Your task to perform on an android device: Open Google Maps and go to "Timeline" Image 0: 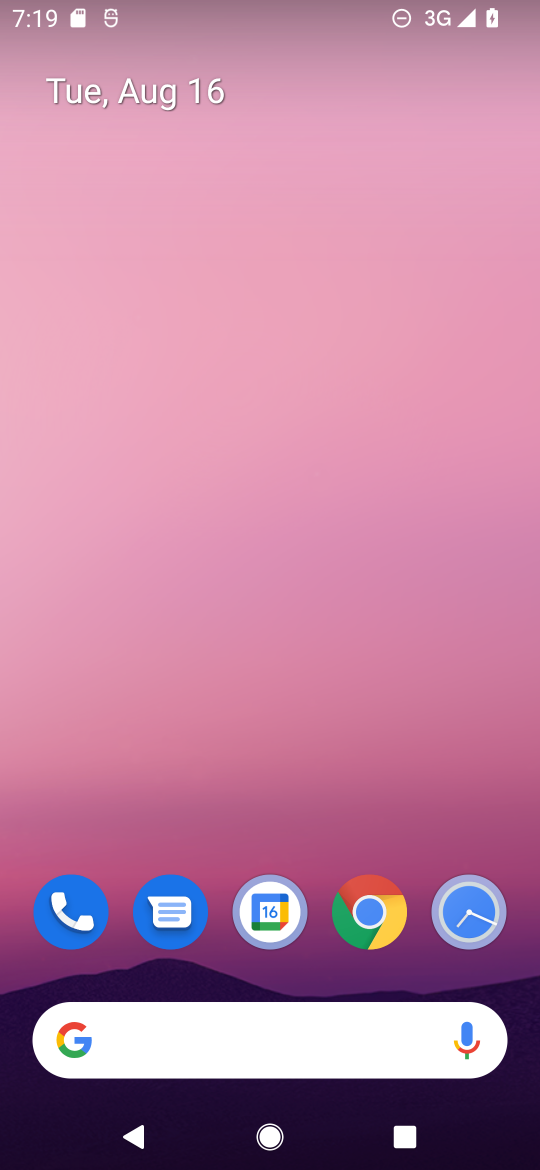
Step 0: drag from (418, 956) to (448, 207)
Your task to perform on an android device: Open Google Maps and go to "Timeline" Image 1: 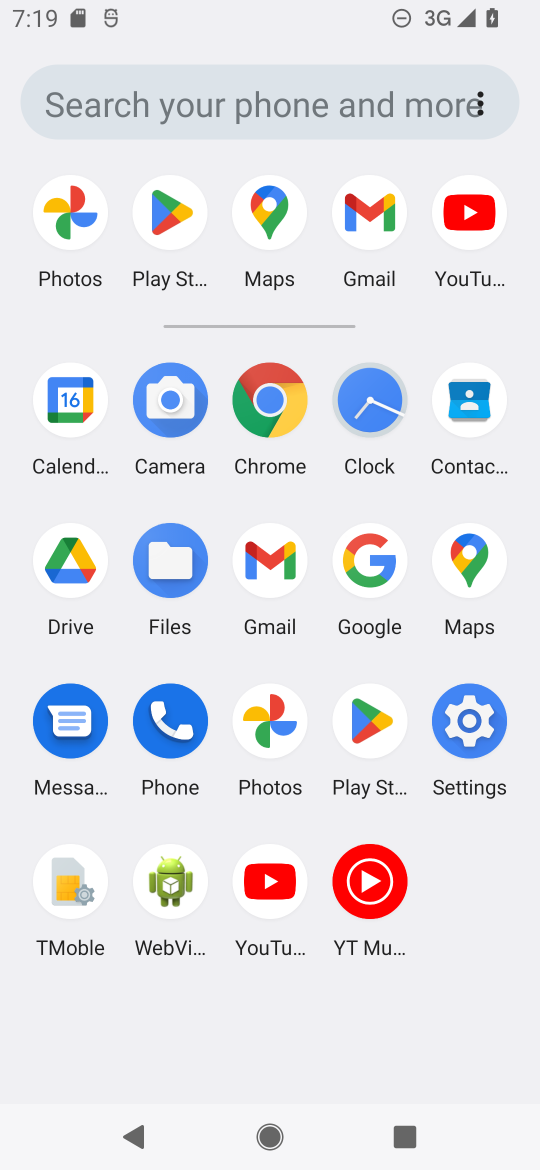
Step 1: click (470, 559)
Your task to perform on an android device: Open Google Maps and go to "Timeline" Image 2: 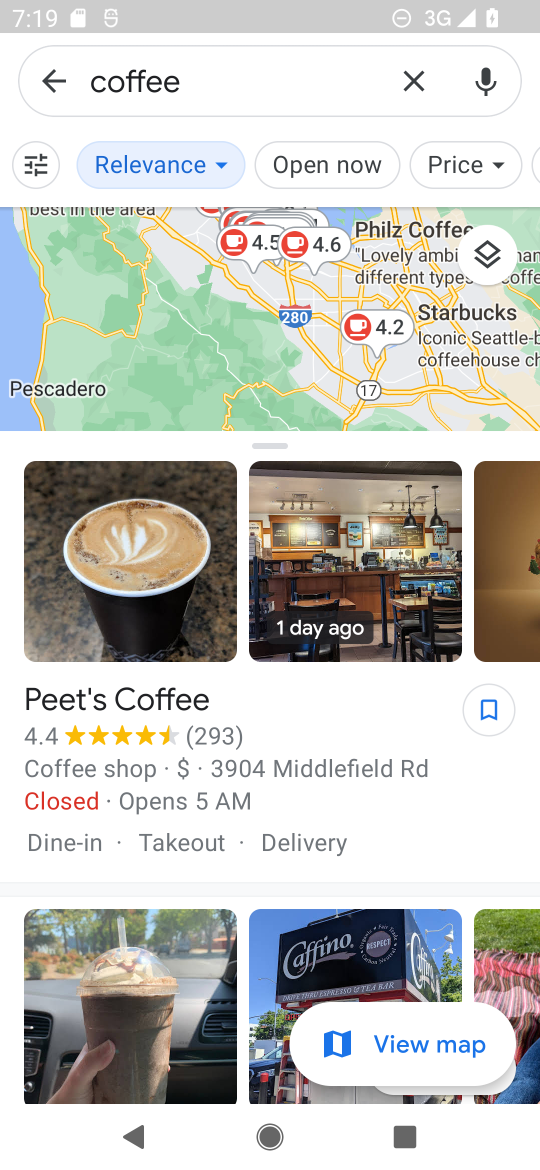
Step 2: click (412, 77)
Your task to perform on an android device: Open Google Maps and go to "Timeline" Image 3: 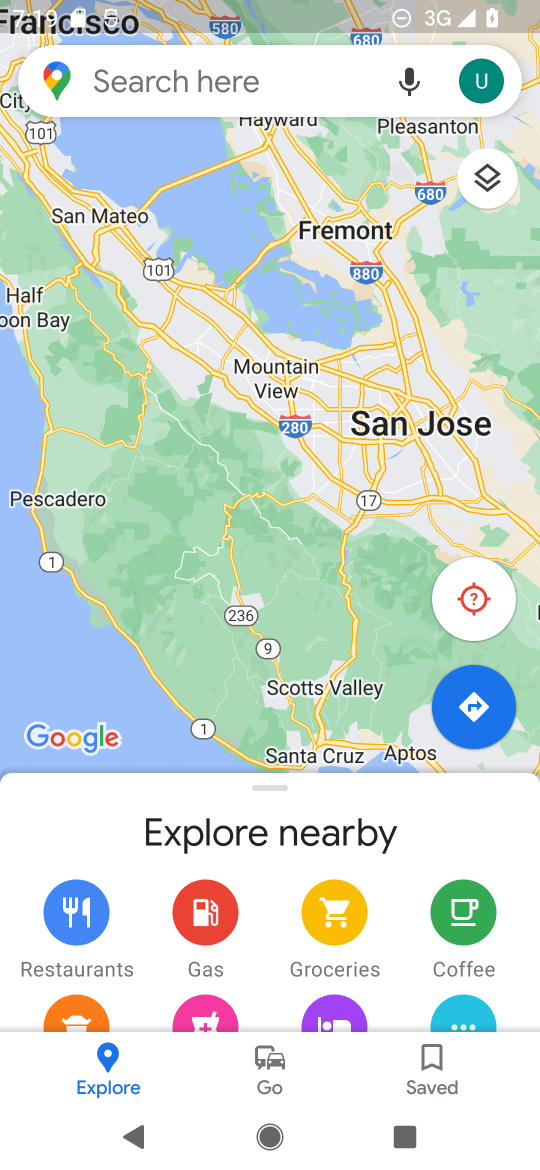
Step 3: click (490, 84)
Your task to perform on an android device: Open Google Maps and go to "Timeline" Image 4: 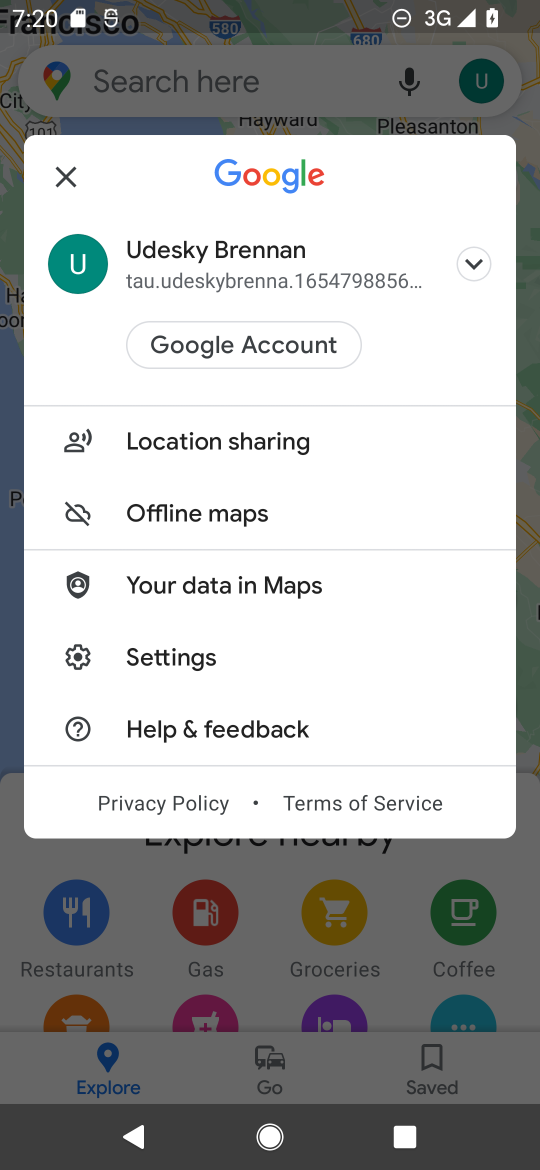
Step 4: click (223, 911)
Your task to perform on an android device: Open Google Maps and go to "Timeline" Image 5: 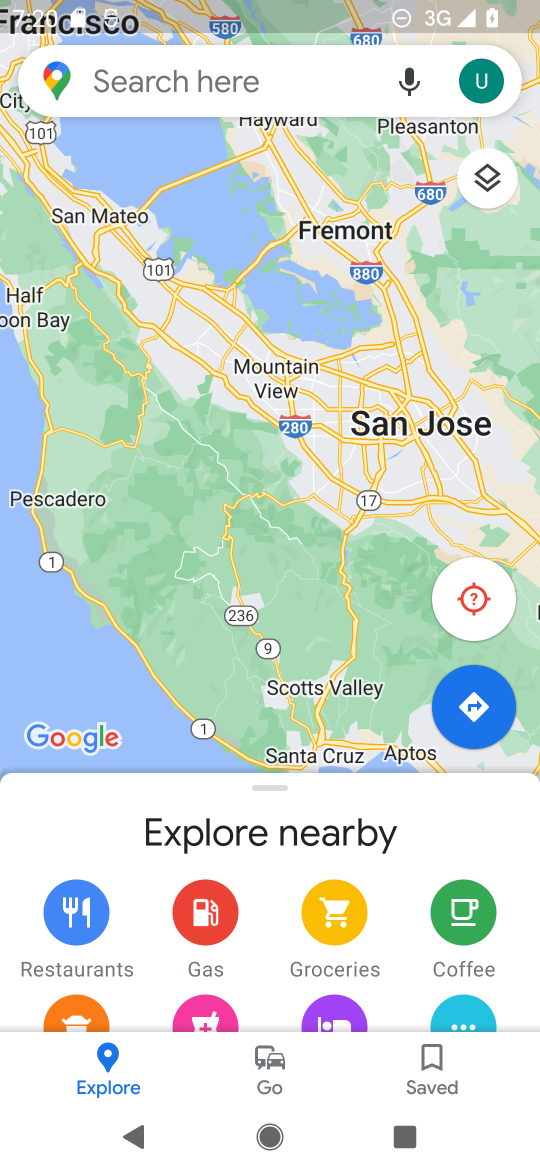
Step 5: click (426, 1071)
Your task to perform on an android device: Open Google Maps and go to "Timeline" Image 6: 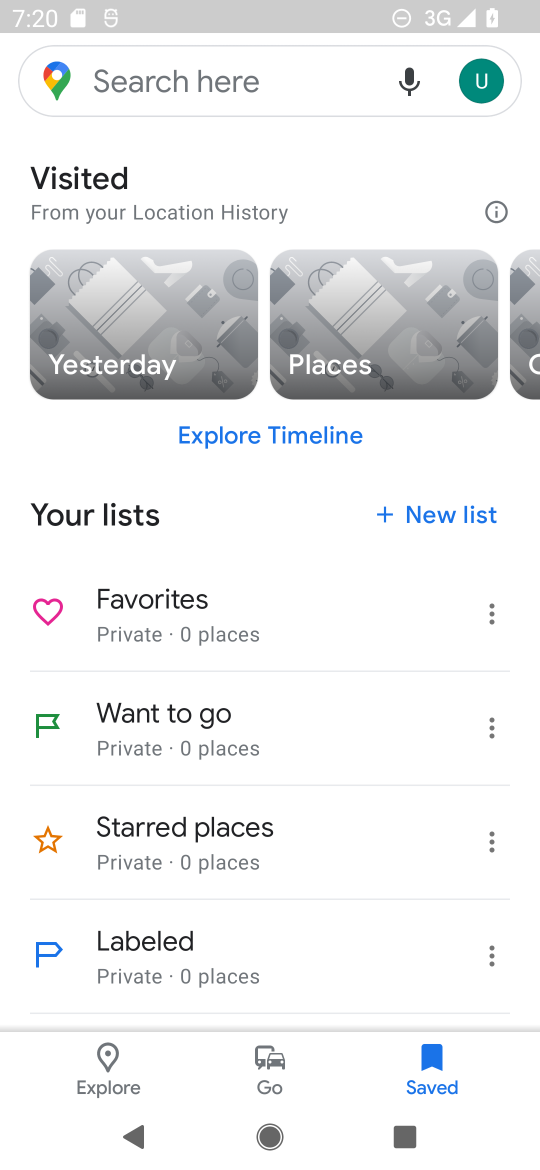
Step 6: drag from (317, 887) to (277, 933)
Your task to perform on an android device: Open Google Maps and go to "Timeline" Image 7: 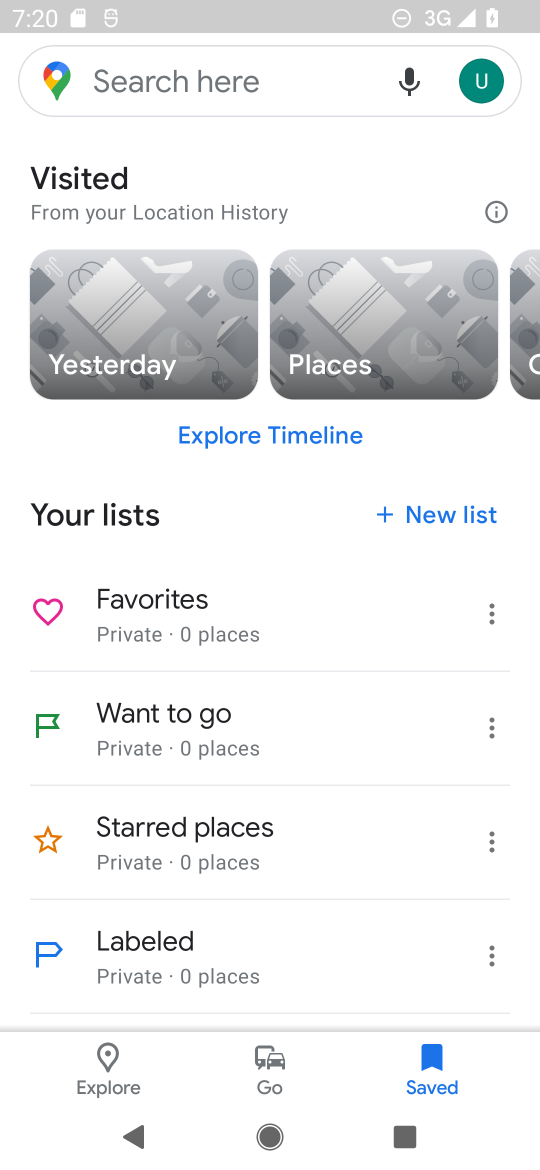
Step 7: click (262, 1076)
Your task to perform on an android device: Open Google Maps and go to "Timeline" Image 8: 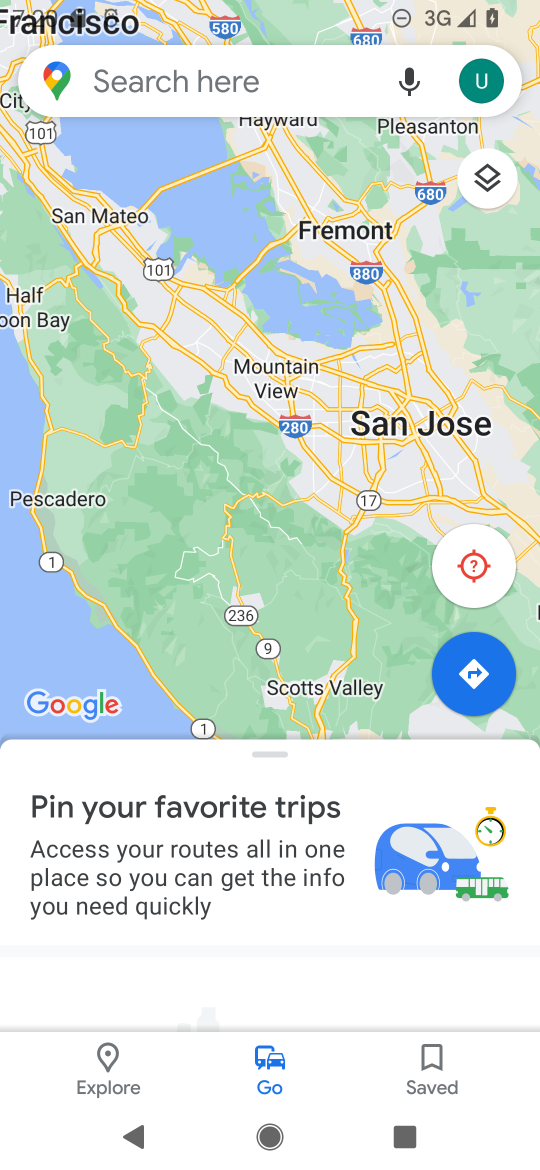
Step 8: click (102, 1072)
Your task to perform on an android device: Open Google Maps and go to "Timeline" Image 9: 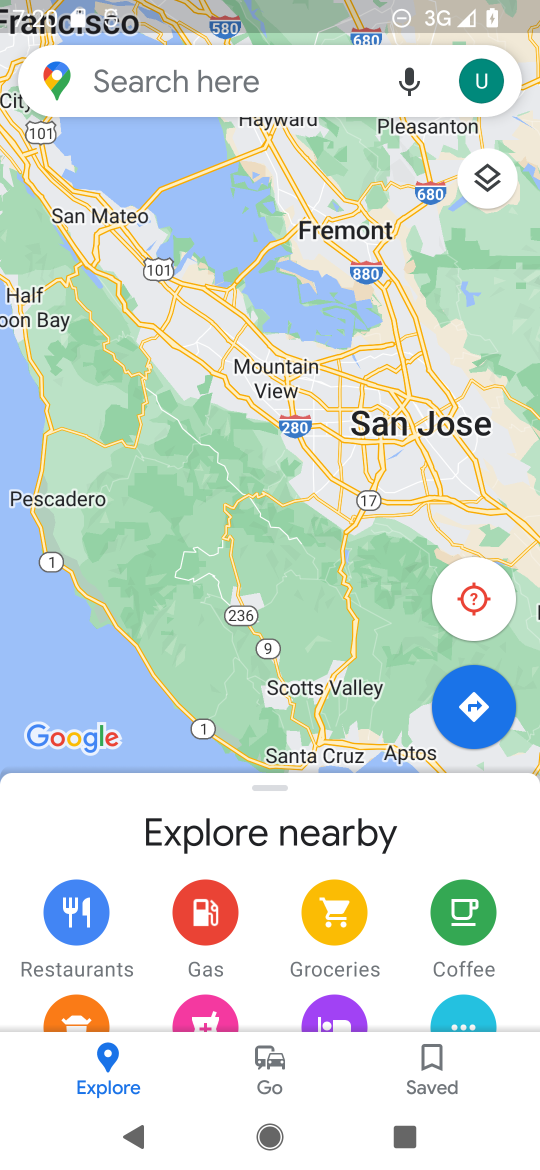
Step 9: click (481, 87)
Your task to perform on an android device: Open Google Maps and go to "Timeline" Image 10: 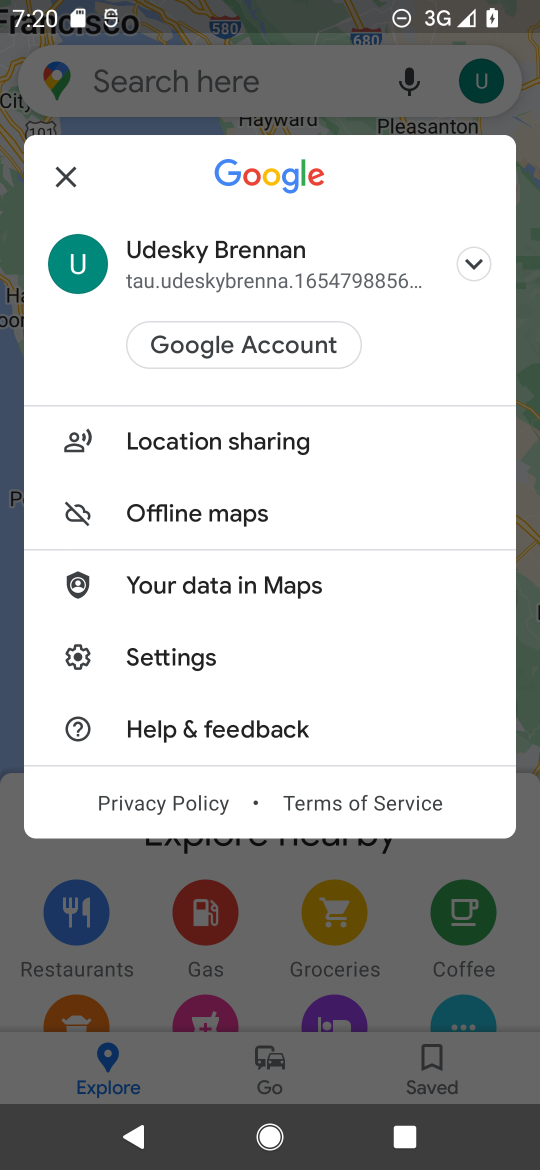
Step 10: click (168, 665)
Your task to perform on an android device: Open Google Maps and go to "Timeline" Image 11: 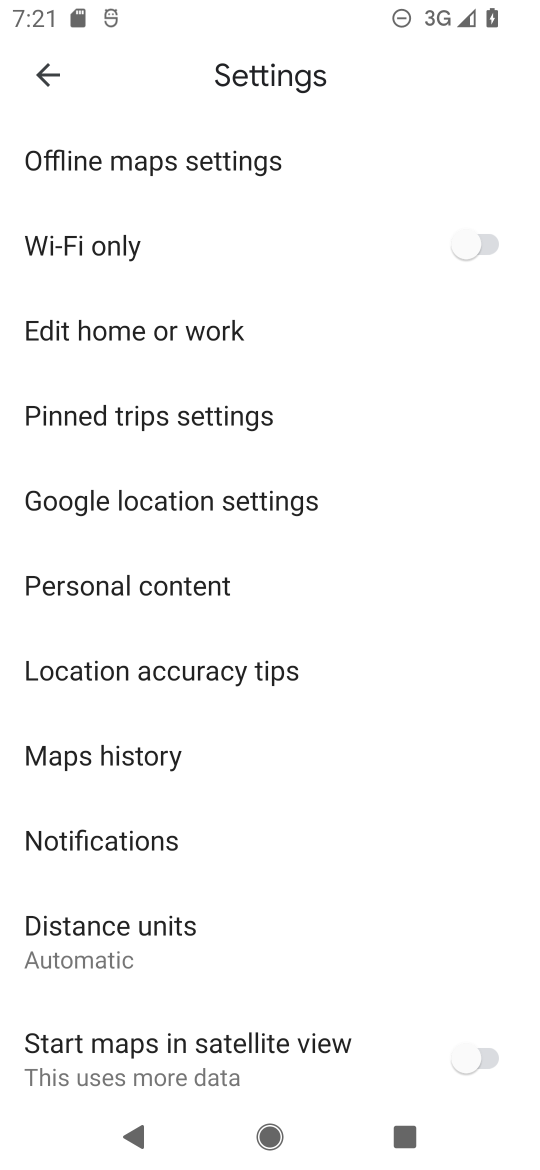
Step 11: task complete